Your task to perform on an android device: Open eBay Image 0: 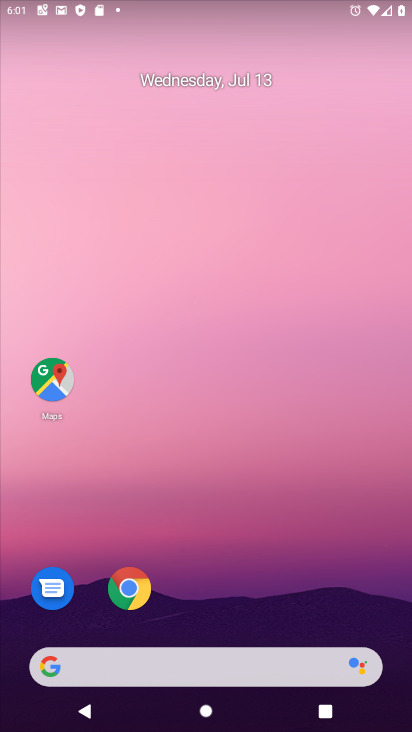
Step 0: drag from (181, 546) to (189, 30)
Your task to perform on an android device: Open eBay Image 1: 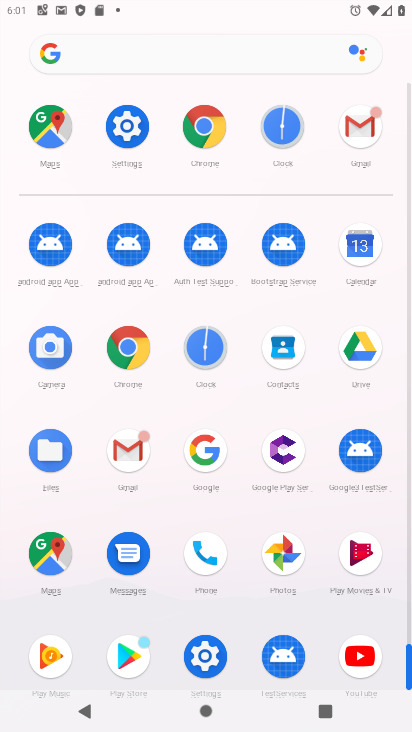
Step 1: click (205, 120)
Your task to perform on an android device: Open eBay Image 2: 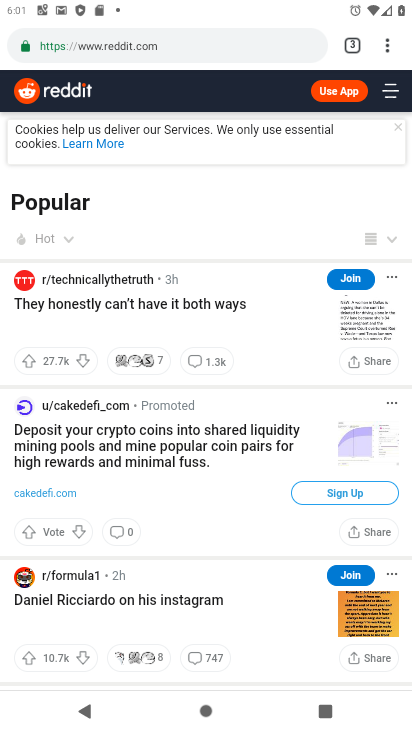
Step 2: click (162, 52)
Your task to perform on an android device: Open eBay Image 3: 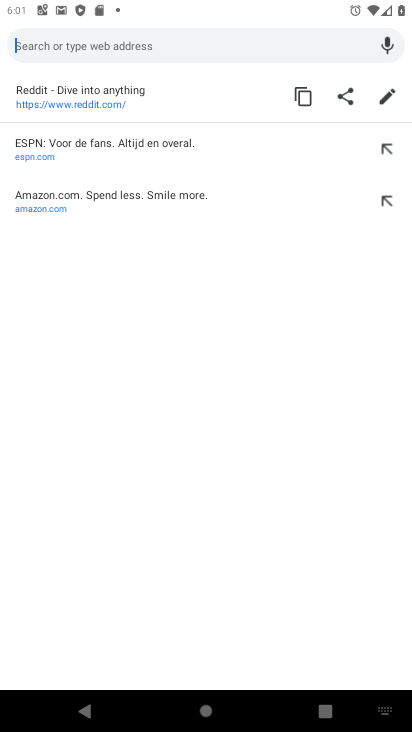
Step 3: type "www.ebay.com"
Your task to perform on an android device: Open eBay Image 4: 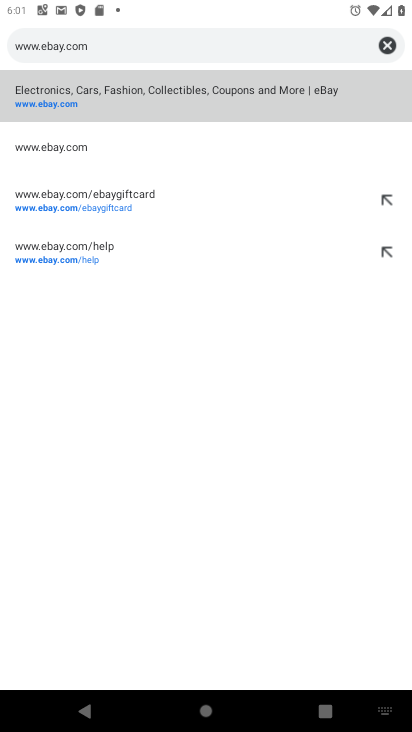
Step 4: click (54, 105)
Your task to perform on an android device: Open eBay Image 5: 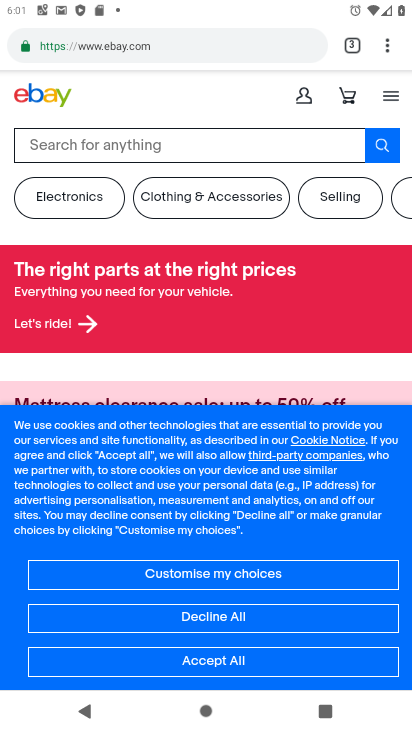
Step 5: task complete